Your task to perform on an android device: remove spam from my inbox in the gmail app Image 0: 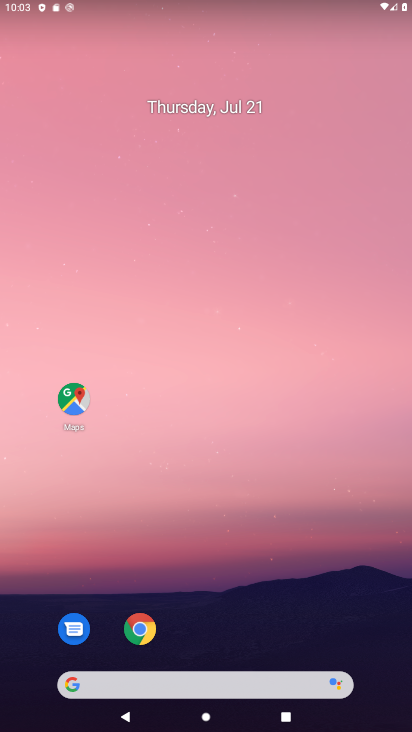
Step 0: press home button
Your task to perform on an android device: remove spam from my inbox in the gmail app Image 1: 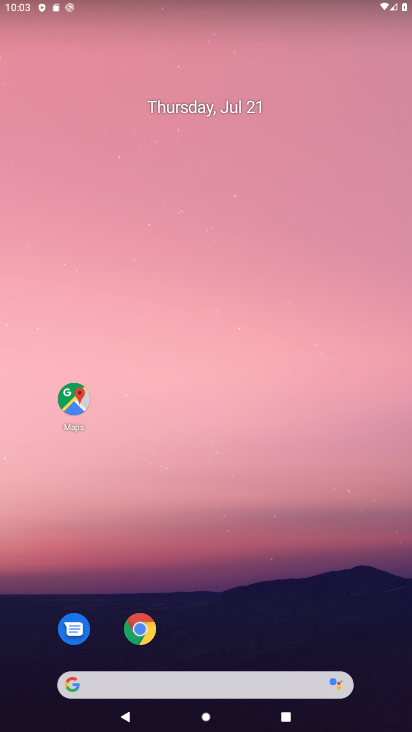
Step 1: drag from (247, 635) to (353, 91)
Your task to perform on an android device: remove spam from my inbox in the gmail app Image 2: 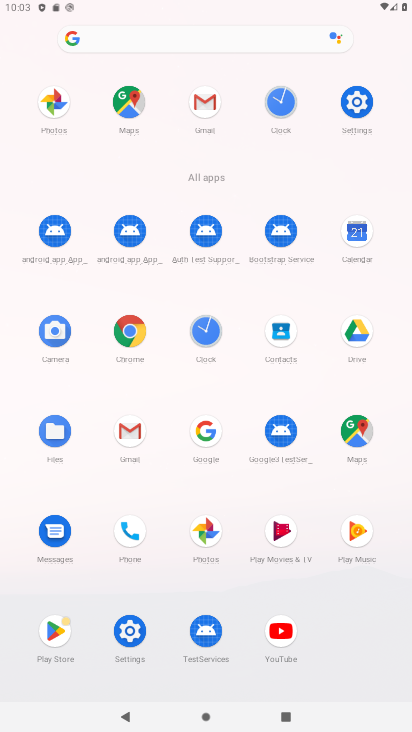
Step 2: click (211, 105)
Your task to perform on an android device: remove spam from my inbox in the gmail app Image 3: 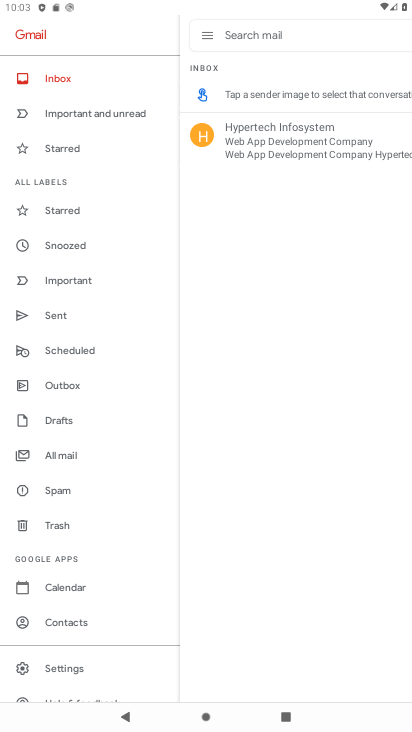
Step 3: click (244, 144)
Your task to perform on an android device: remove spam from my inbox in the gmail app Image 4: 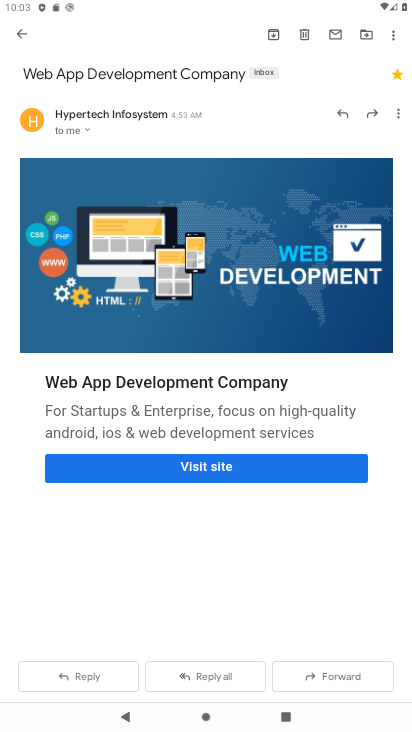
Step 4: click (395, 30)
Your task to perform on an android device: remove spam from my inbox in the gmail app Image 5: 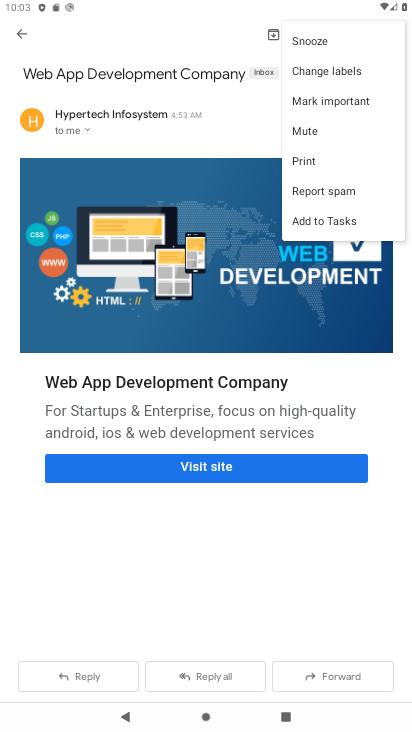
Step 5: click (306, 191)
Your task to perform on an android device: remove spam from my inbox in the gmail app Image 6: 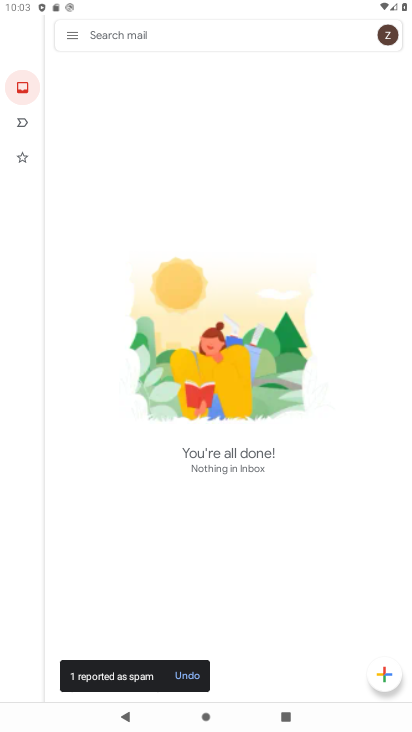
Step 6: task complete